Your task to perform on an android device: Go to settings Image 0: 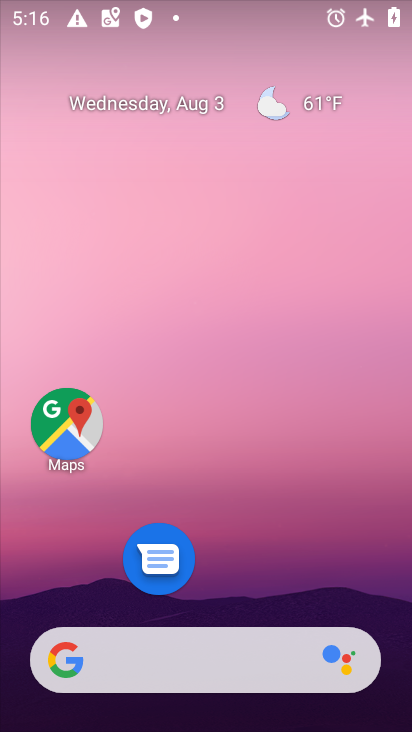
Step 0: drag from (216, 633) to (218, 244)
Your task to perform on an android device: Go to settings Image 1: 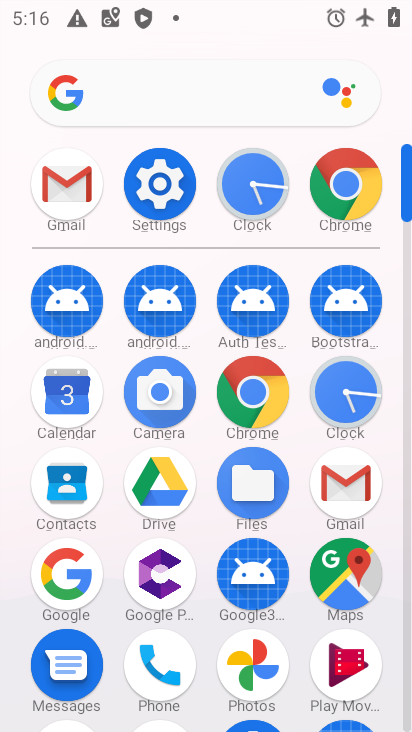
Step 1: click (146, 177)
Your task to perform on an android device: Go to settings Image 2: 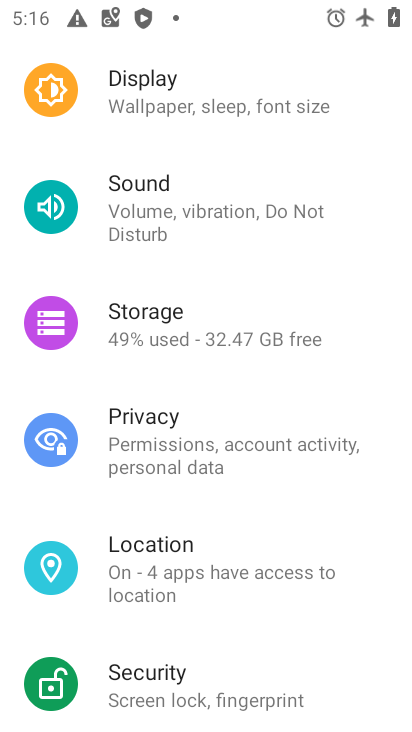
Step 2: drag from (201, 73) to (201, 553)
Your task to perform on an android device: Go to settings Image 3: 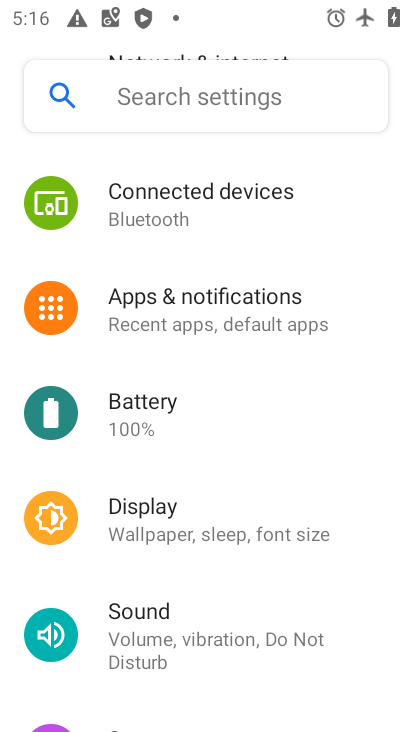
Step 3: drag from (132, 160) to (154, 555)
Your task to perform on an android device: Go to settings Image 4: 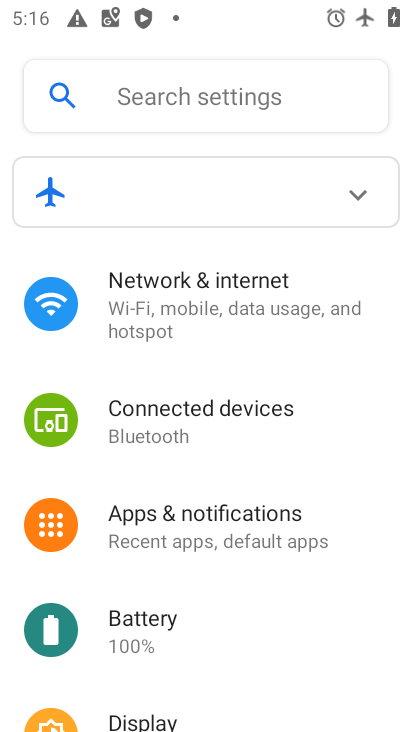
Step 4: click (118, 292)
Your task to perform on an android device: Go to settings Image 5: 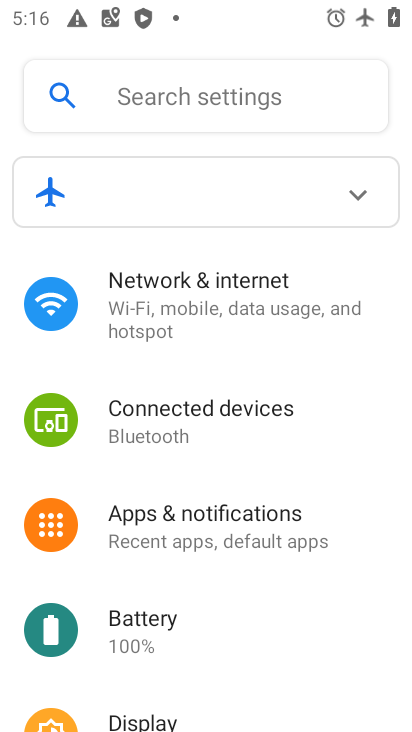
Step 5: task complete